Your task to perform on an android device: Open wifi settings Image 0: 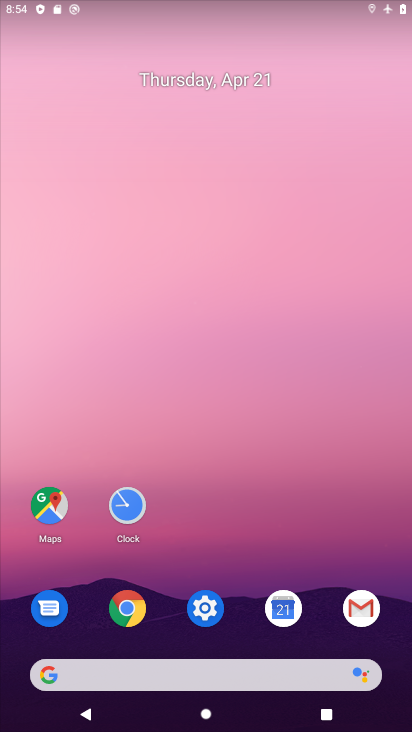
Step 0: click (200, 614)
Your task to perform on an android device: Open wifi settings Image 1: 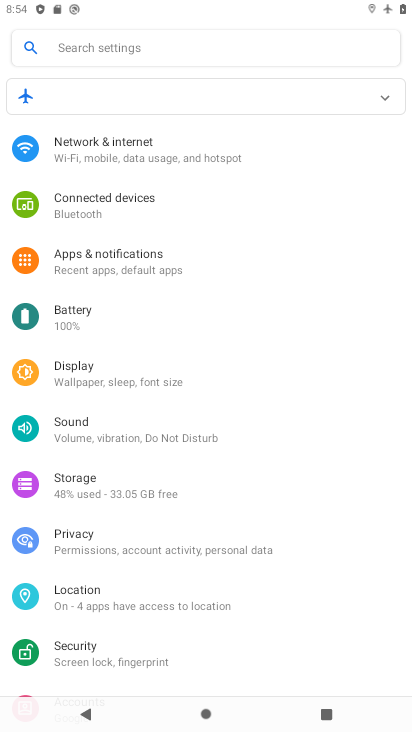
Step 1: click (105, 144)
Your task to perform on an android device: Open wifi settings Image 2: 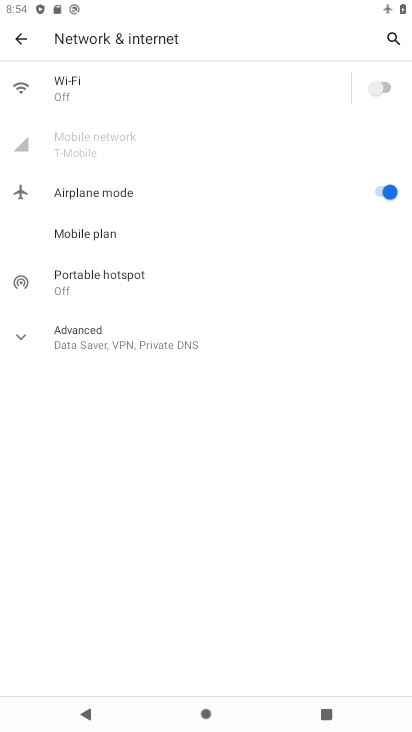
Step 2: click (70, 77)
Your task to perform on an android device: Open wifi settings Image 3: 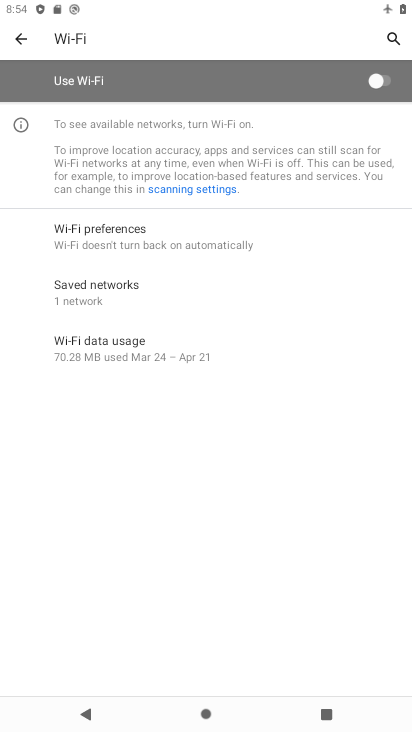
Step 3: task complete